Your task to perform on an android device: turn off wifi Image 0: 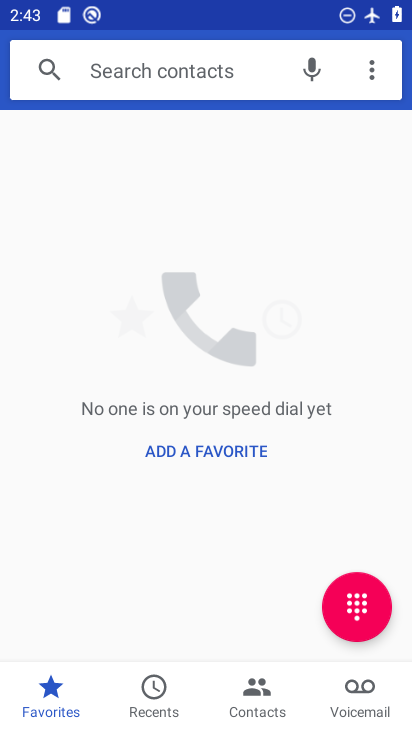
Step 0: press home button
Your task to perform on an android device: turn off wifi Image 1: 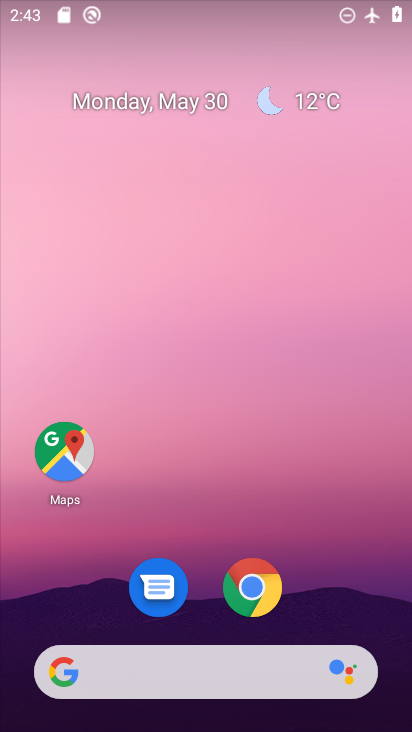
Step 1: drag from (209, 584) to (310, 174)
Your task to perform on an android device: turn off wifi Image 2: 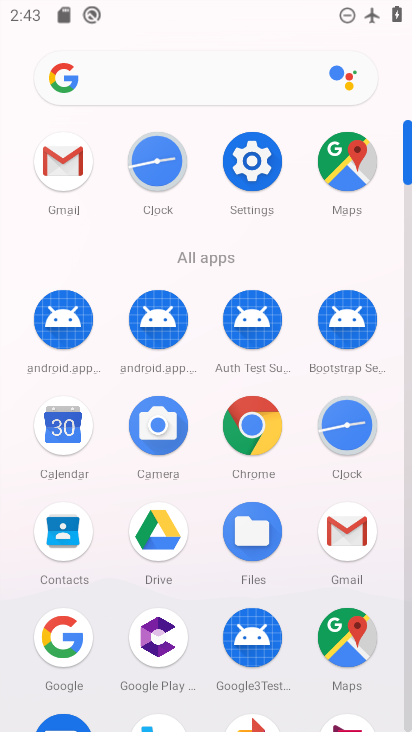
Step 2: click (272, 159)
Your task to perform on an android device: turn off wifi Image 3: 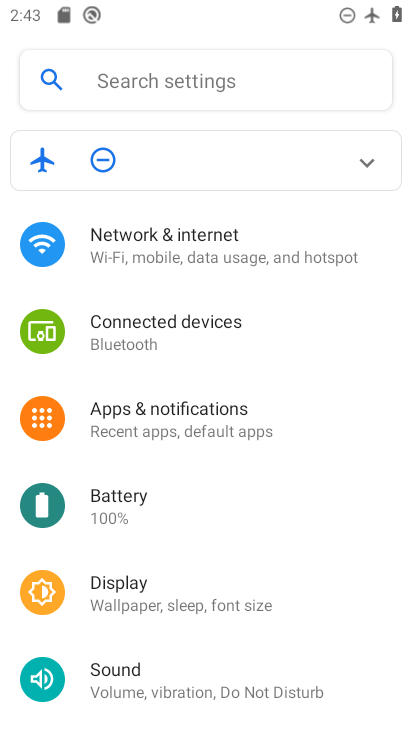
Step 3: click (210, 261)
Your task to perform on an android device: turn off wifi Image 4: 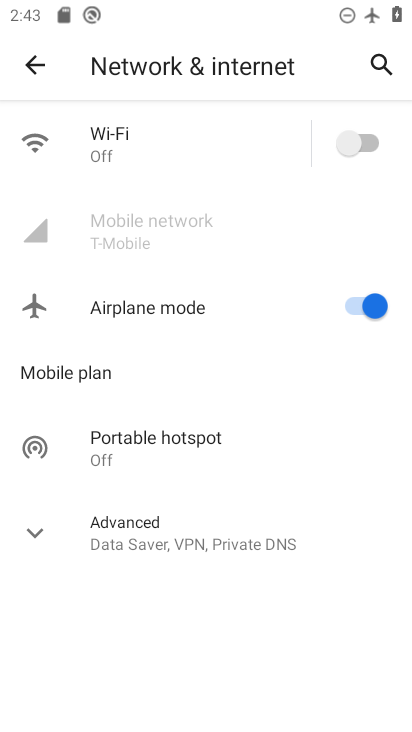
Step 4: task complete